Your task to perform on an android device: Show me popular games on the Play Store Image 0: 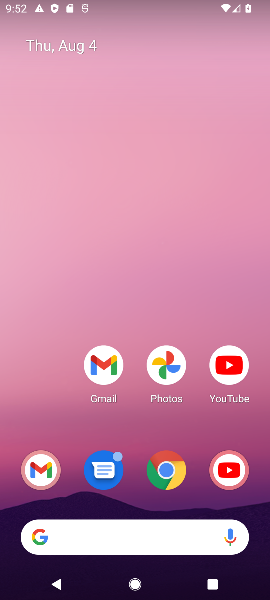
Step 0: drag from (160, 422) to (168, 188)
Your task to perform on an android device: Show me popular games on the Play Store Image 1: 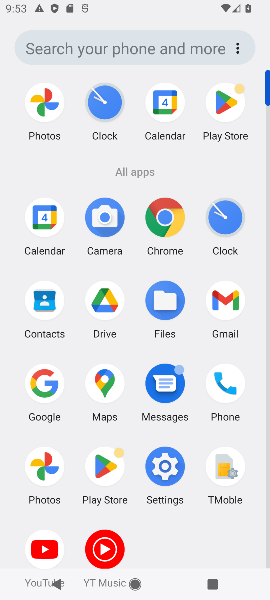
Step 1: click (98, 475)
Your task to perform on an android device: Show me popular games on the Play Store Image 2: 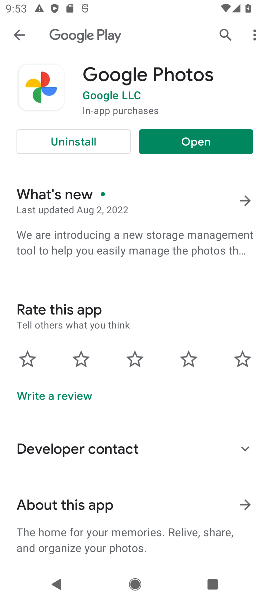
Step 2: click (21, 37)
Your task to perform on an android device: Show me popular games on the Play Store Image 3: 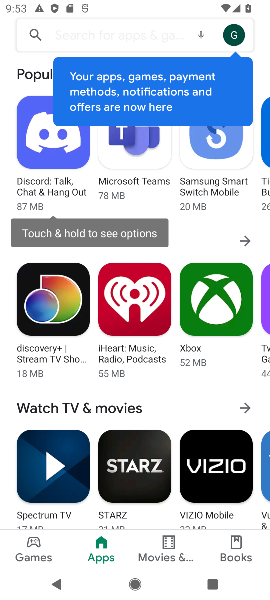
Step 3: click (40, 551)
Your task to perform on an android device: Show me popular games on the Play Store Image 4: 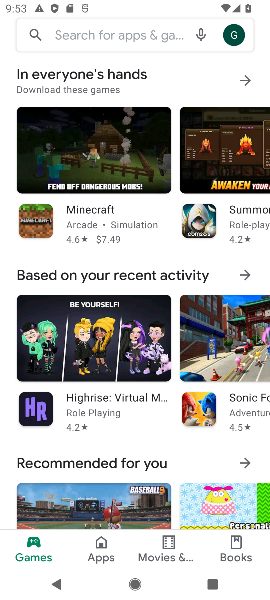
Step 4: task complete